Your task to perform on an android device: Open Wikipedia Image 0: 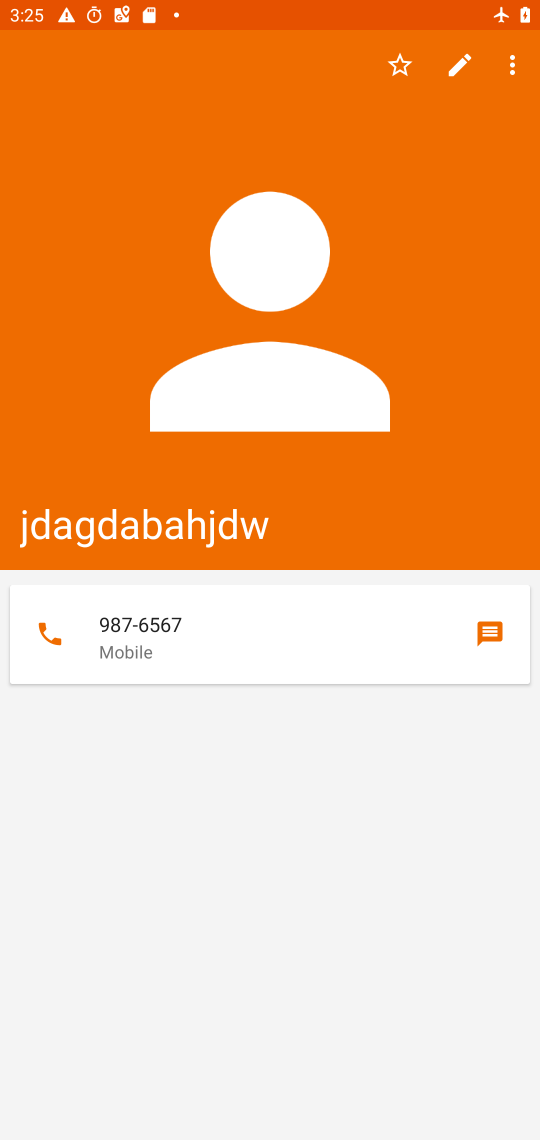
Step 0: press home button
Your task to perform on an android device: Open Wikipedia Image 1: 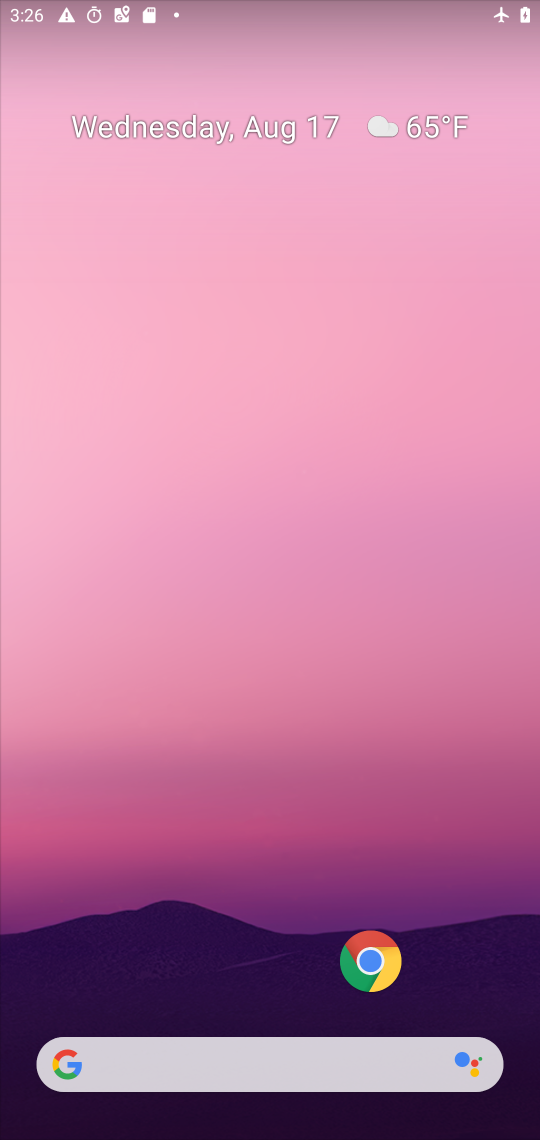
Step 1: click (376, 981)
Your task to perform on an android device: Open Wikipedia Image 2: 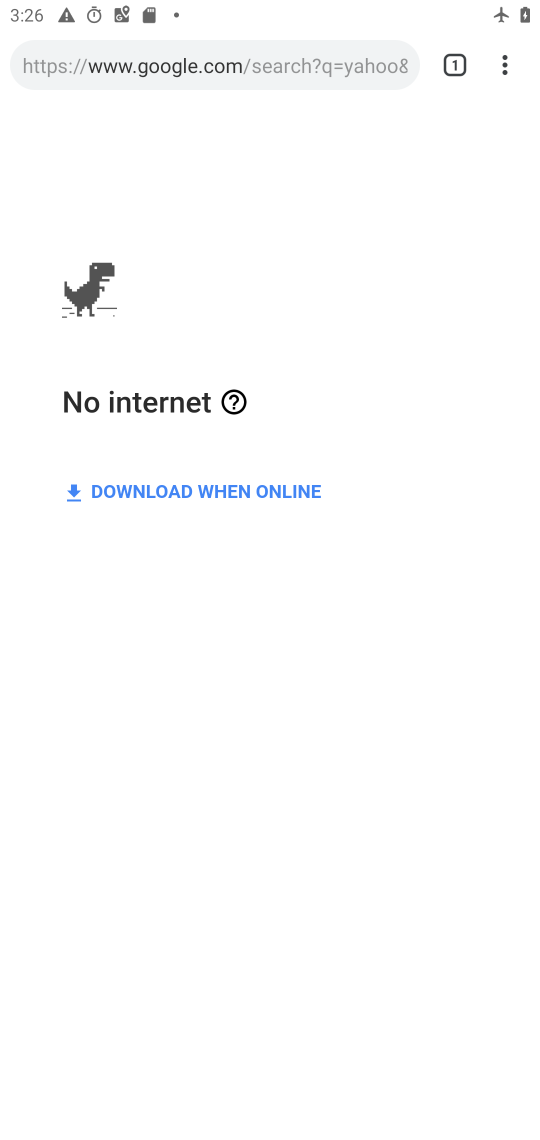
Step 2: click (208, 74)
Your task to perform on an android device: Open Wikipedia Image 3: 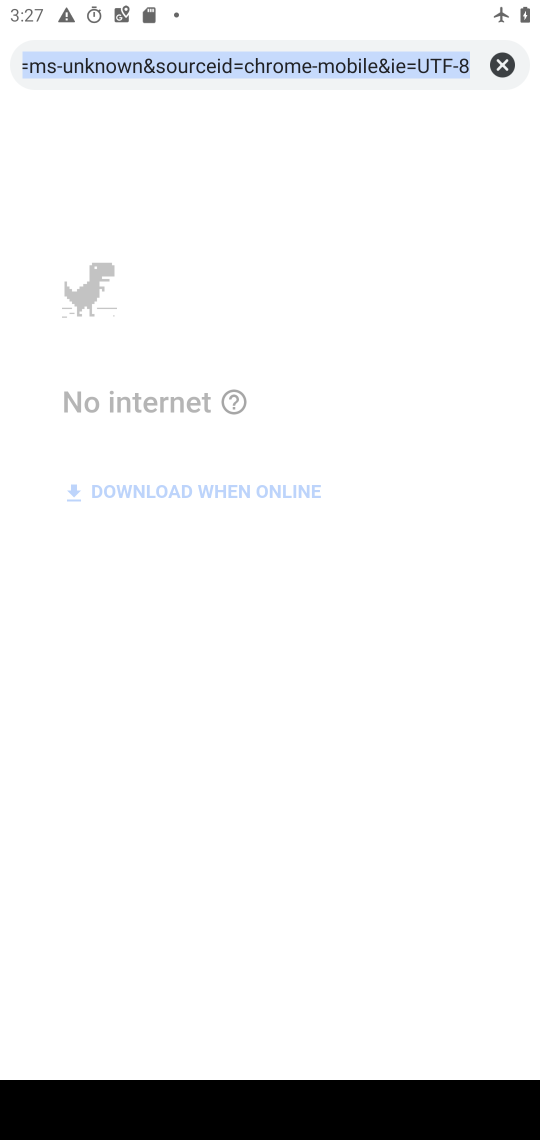
Step 3: type "wikipedia"
Your task to perform on an android device: Open Wikipedia Image 4: 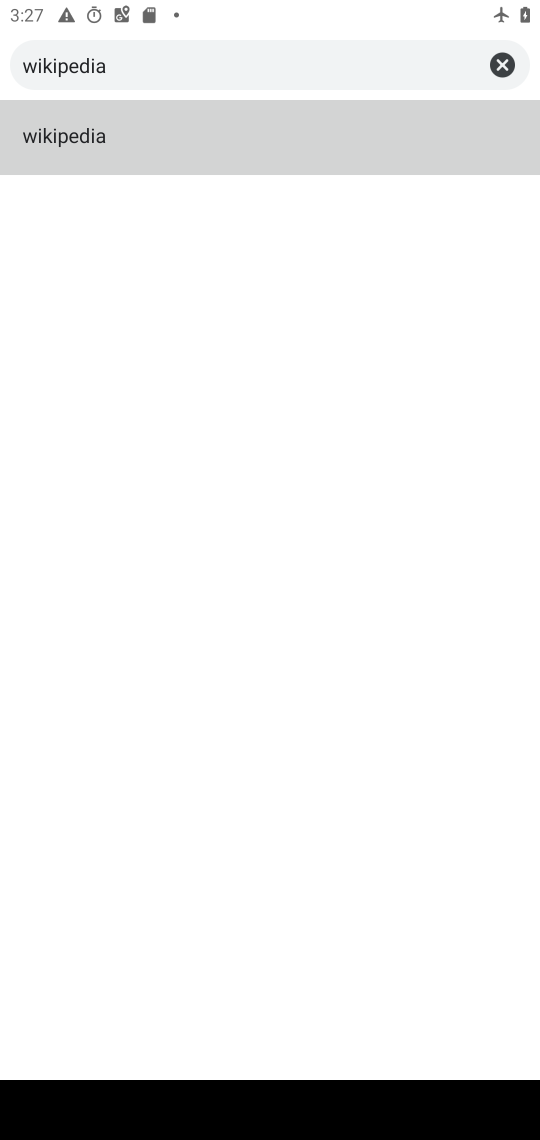
Step 4: click (56, 148)
Your task to perform on an android device: Open Wikipedia Image 5: 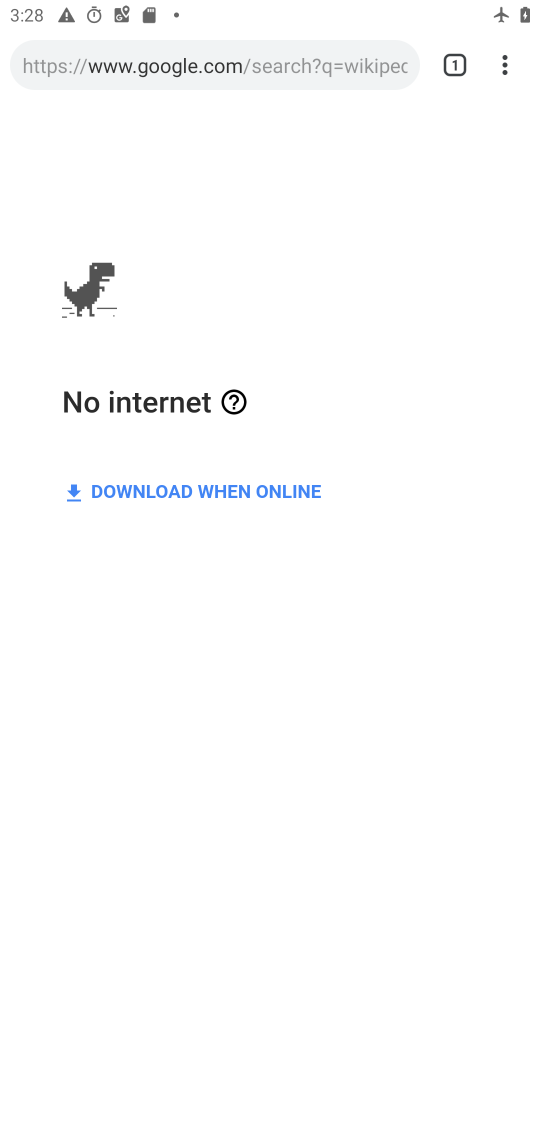
Step 5: task complete